Your task to perform on an android device: check android version Image 0: 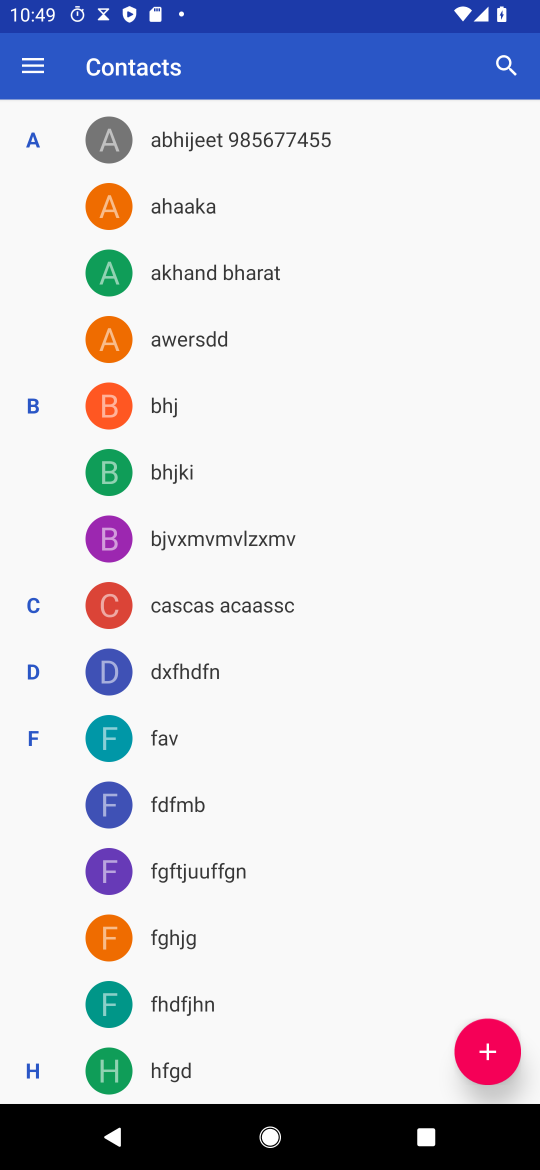
Step 0: press back button
Your task to perform on an android device: check android version Image 1: 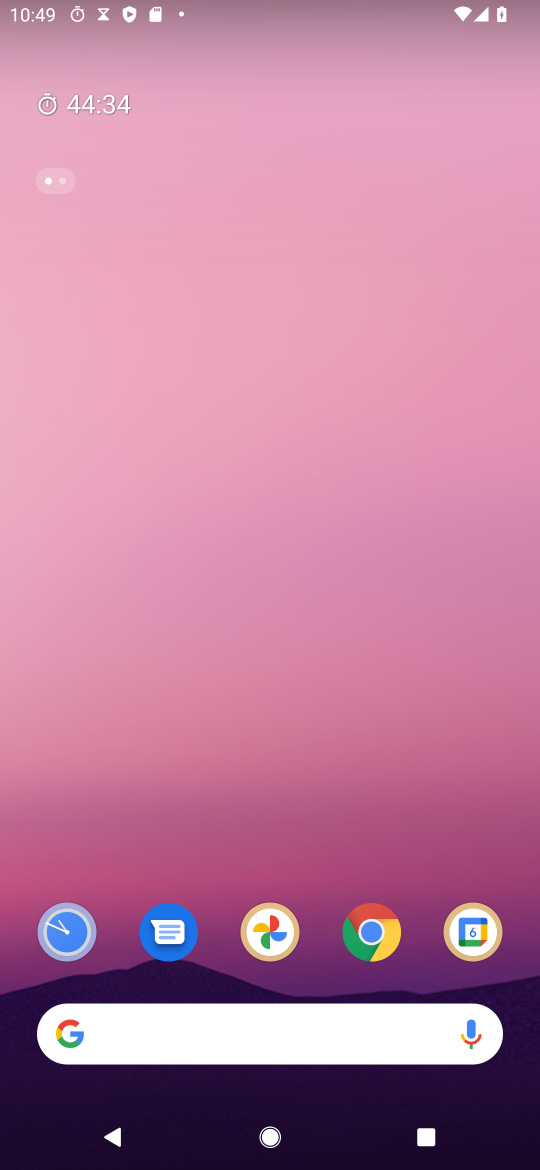
Step 1: drag from (388, 828) to (330, 175)
Your task to perform on an android device: check android version Image 2: 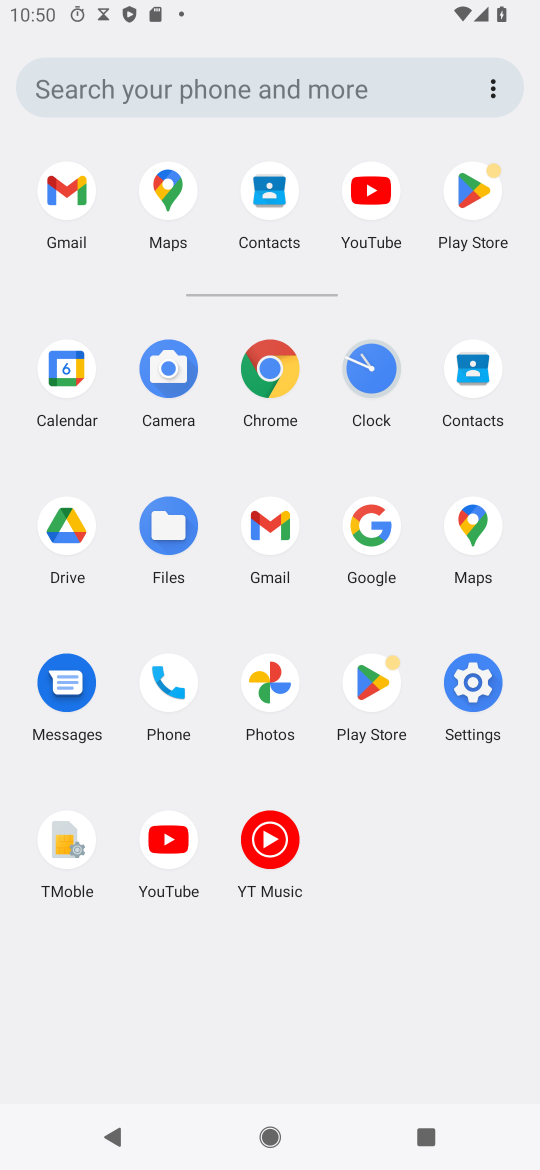
Step 2: click (480, 686)
Your task to perform on an android device: check android version Image 3: 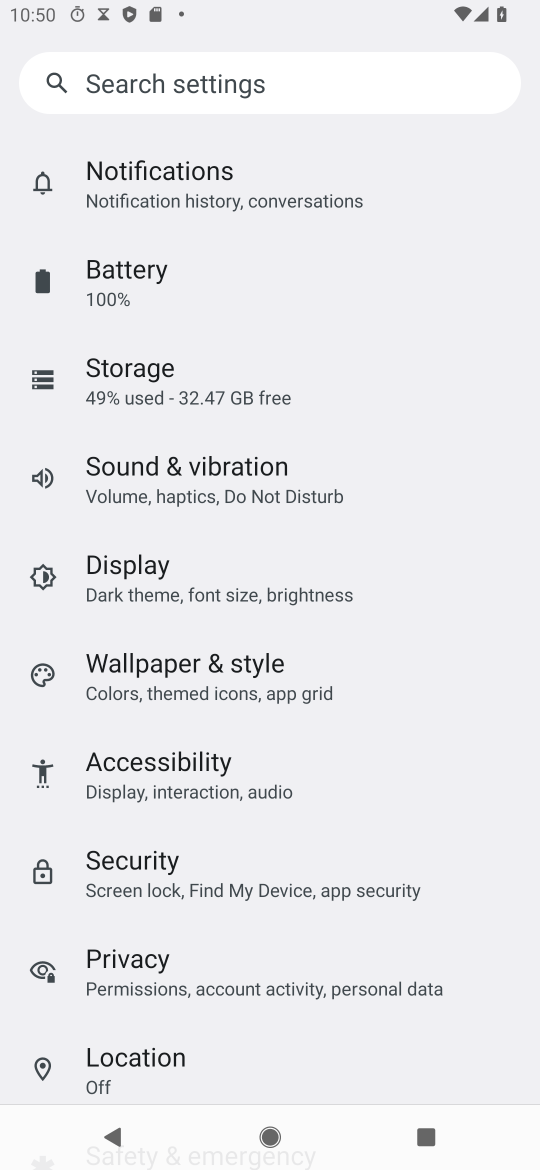
Step 3: drag from (320, 709) to (221, 51)
Your task to perform on an android device: check android version Image 4: 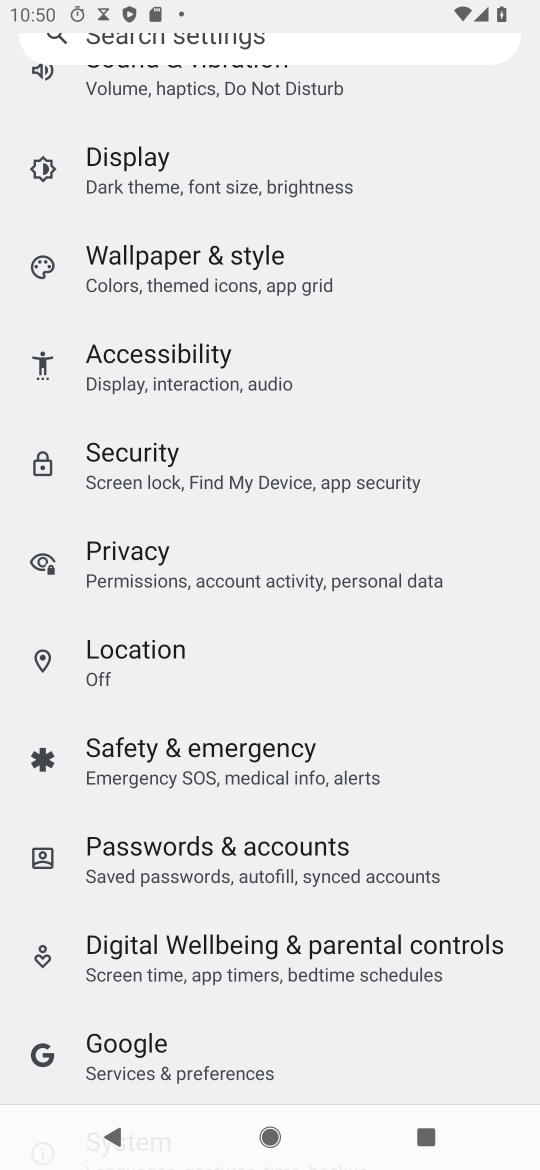
Step 4: drag from (334, 1059) to (289, 544)
Your task to perform on an android device: check android version Image 5: 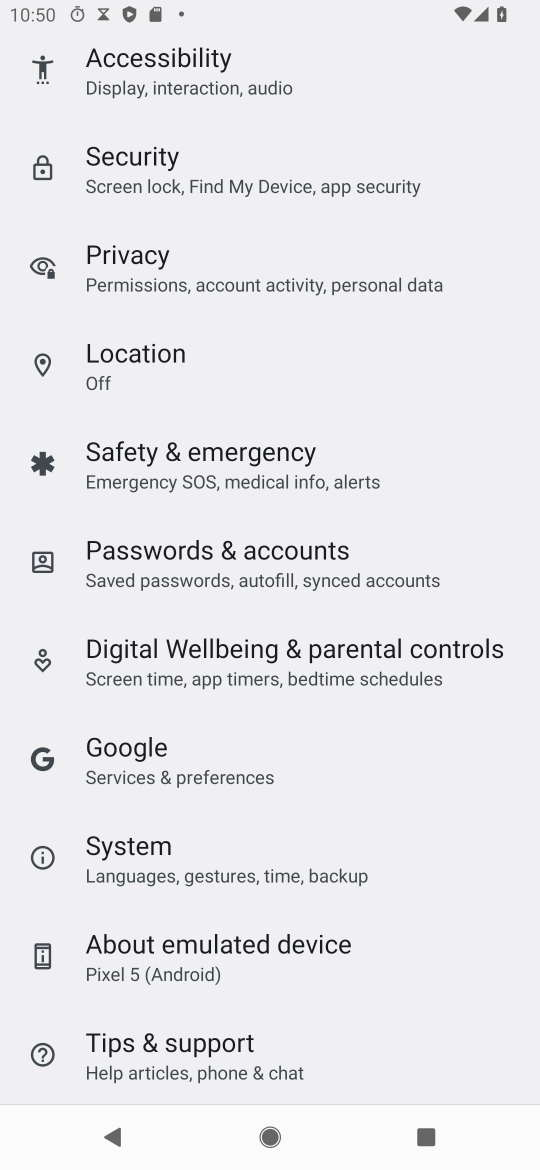
Step 5: click (260, 979)
Your task to perform on an android device: check android version Image 6: 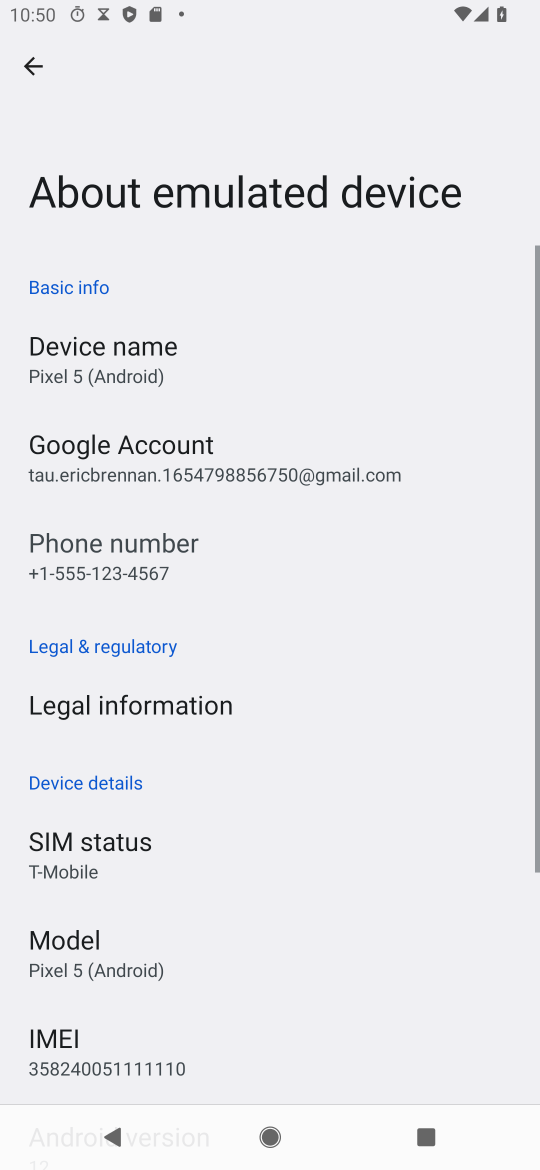
Step 6: drag from (356, 1018) to (260, 351)
Your task to perform on an android device: check android version Image 7: 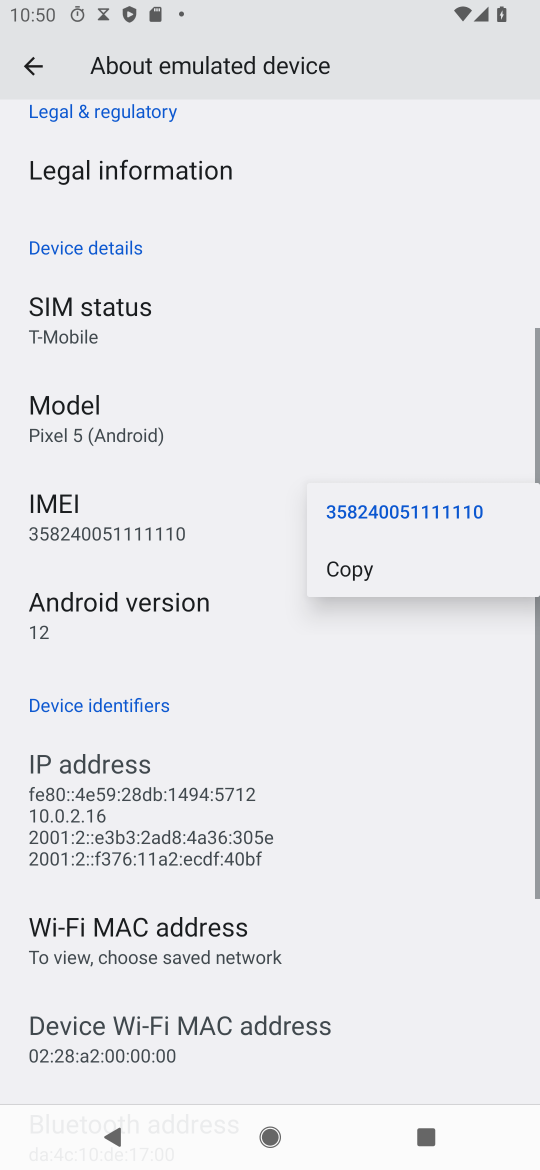
Step 7: click (228, 635)
Your task to perform on an android device: check android version Image 8: 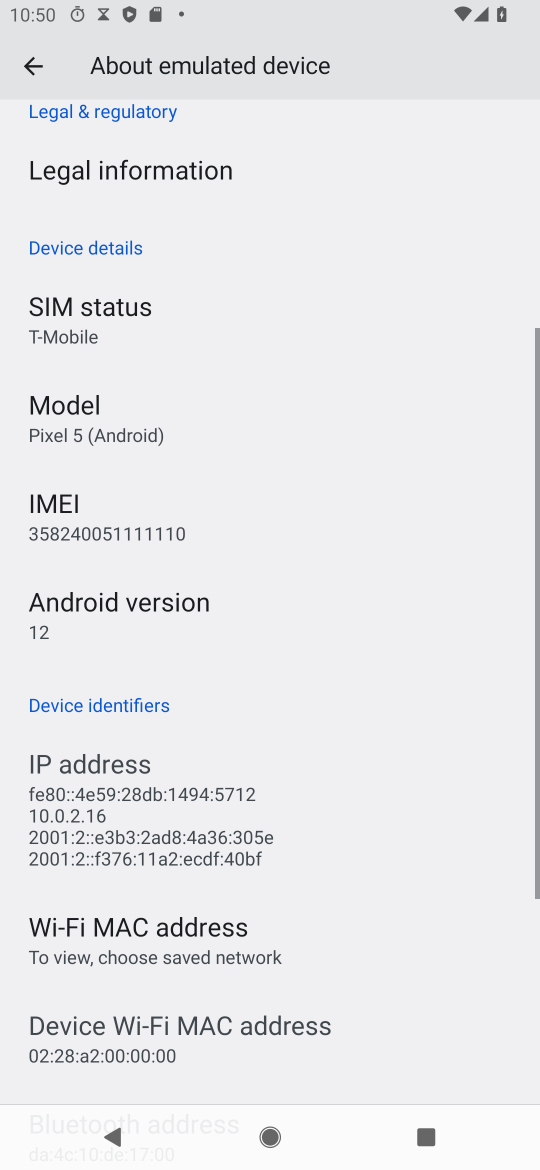
Step 8: click (185, 630)
Your task to perform on an android device: check android version Image 9: 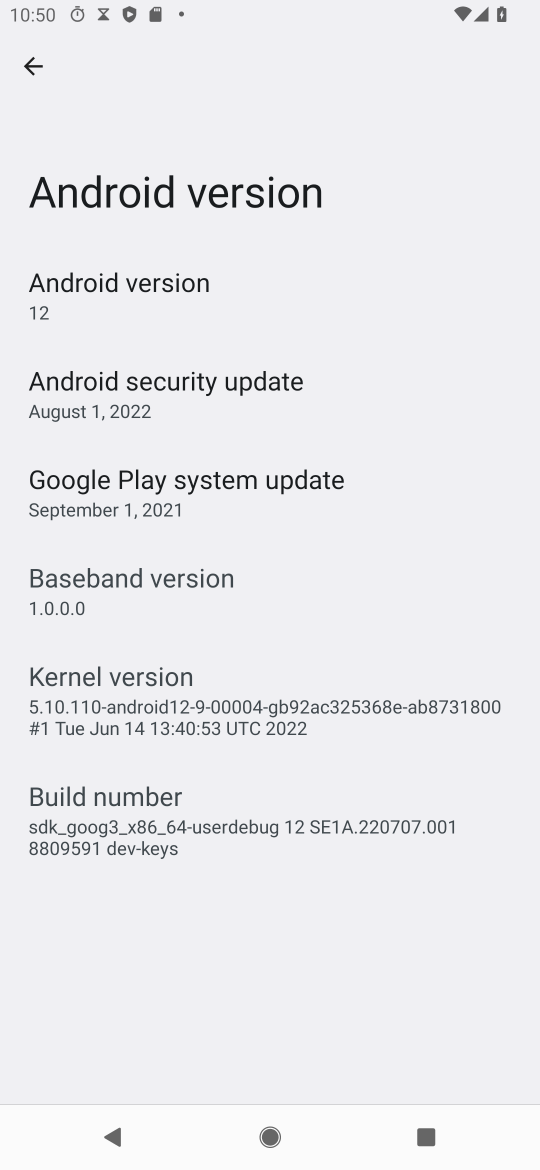
Step 9: task complete